Your task to perform on an android device: Open internet settings Image 0: 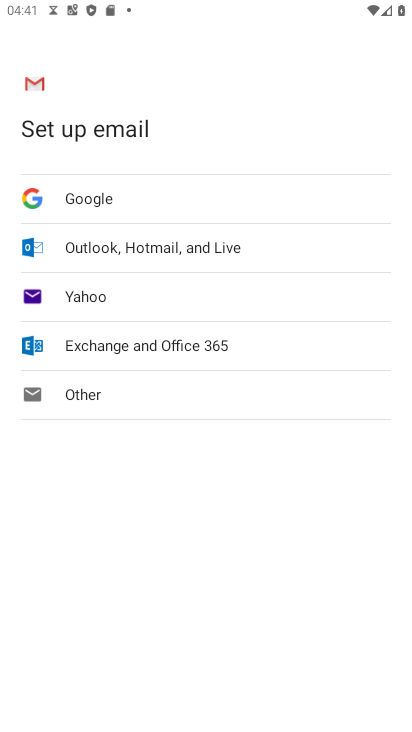
Step 0: press home button
Your task to perform on an android device: Open internet settings Image 1: 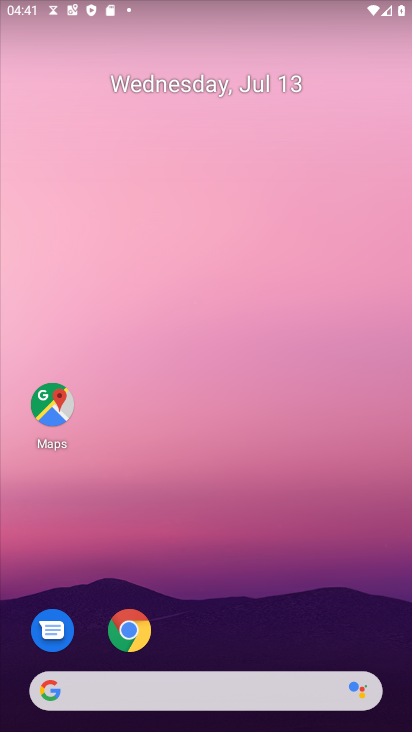
Step 1: drag from (172, 696) to (252, 68)
Your task to perform on an android device: Open internet settings Image 2: 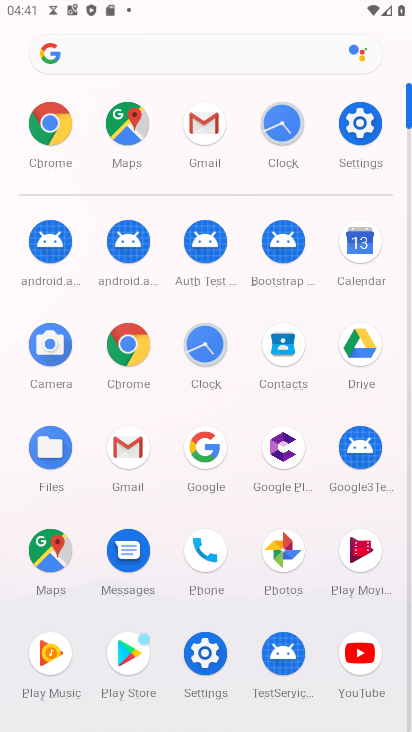
Step 2: click (367, 126)
Your task to perform on an android device: Open internet settings Image 3: 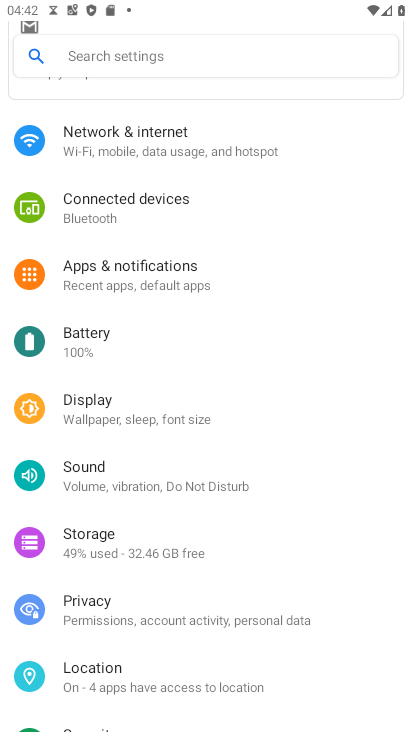
Step 3: click (198, 137)
Your task to perform on an android device: Open internet settings Image 4: 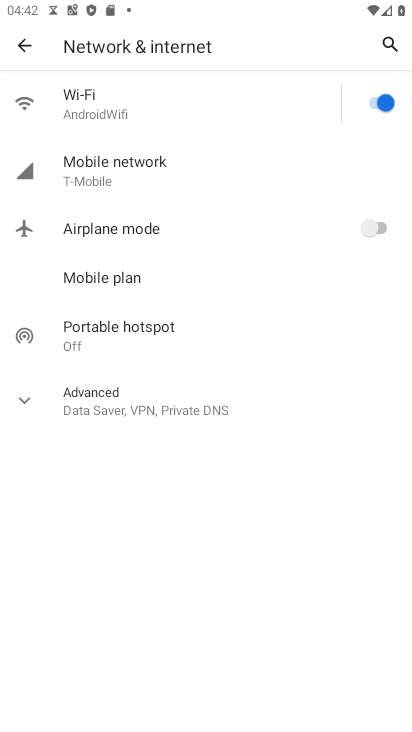
Step 4: click (179, 171)
Your task to perform on an android device: Open internet settings Image 5: 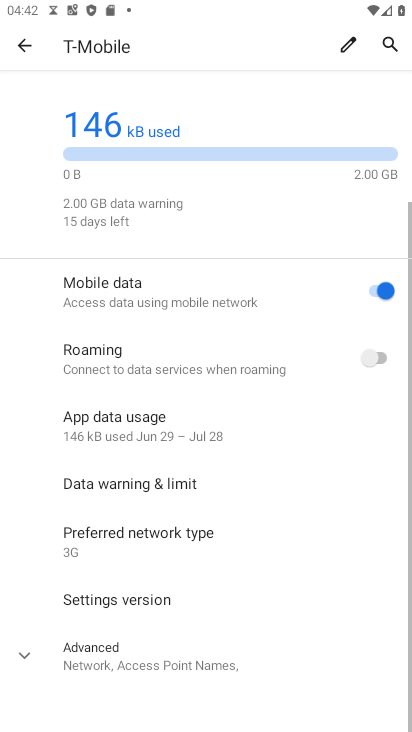
Step 5: task complete